Your task to perform on an android device: Do I have any events today? Image 0: 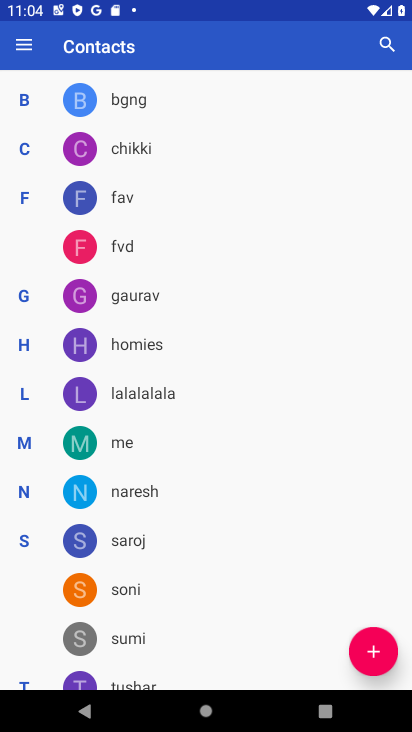
Step 0: press home button
Your task to perform on an android device: Do I have any events today? Image 1: 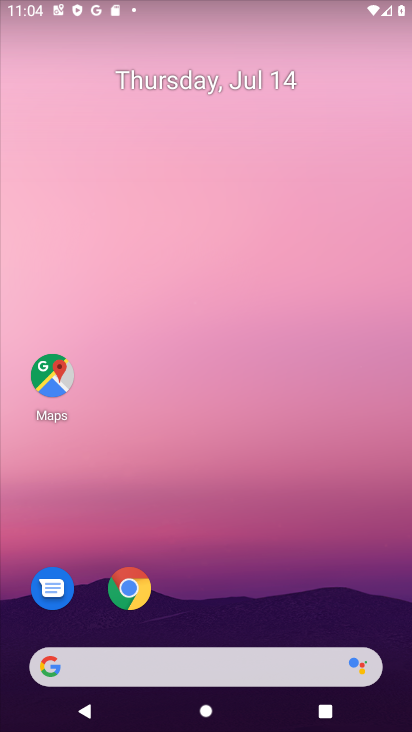
Step 1: drag from (309, 567) to (314, 1)
Your task to perform on an android device: Do I have any events today? Image 2: 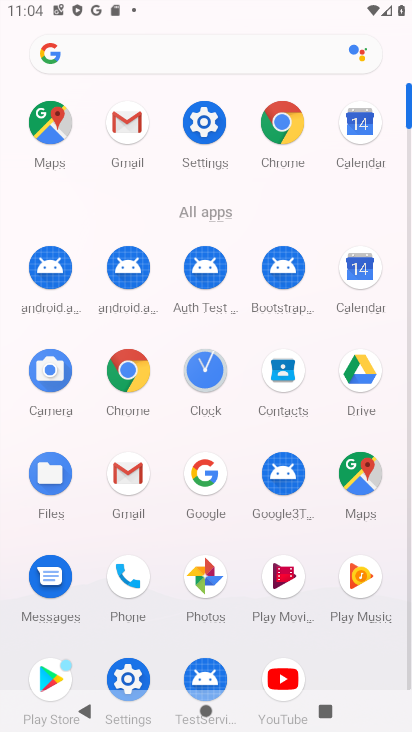
Step 2: click (346, 279)
Your task to perform on an android device: Do I have any events today? Image 3: 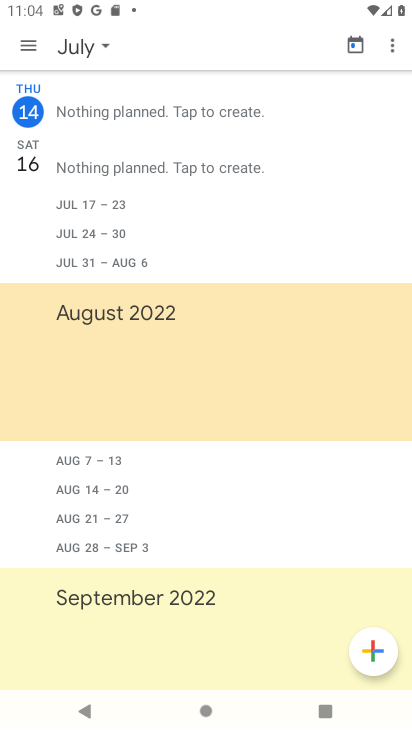
Step 3: click (99, 26)
Your task to perform on an android device: Do I have any events today? Image 4: 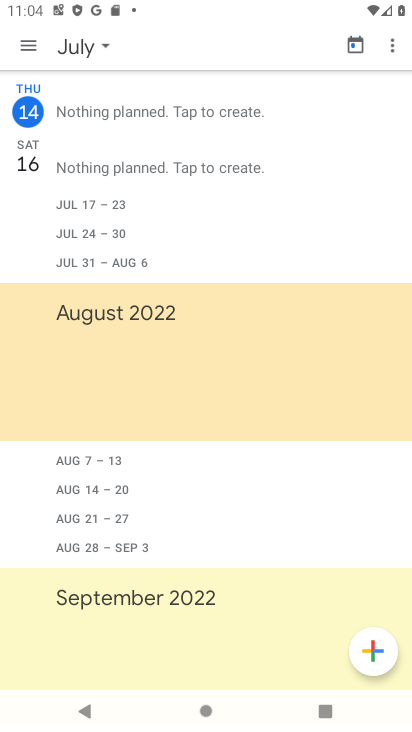
Step 4: click (99, 39)
Your task to perform on an android device: Do I have any events today? Image 5: 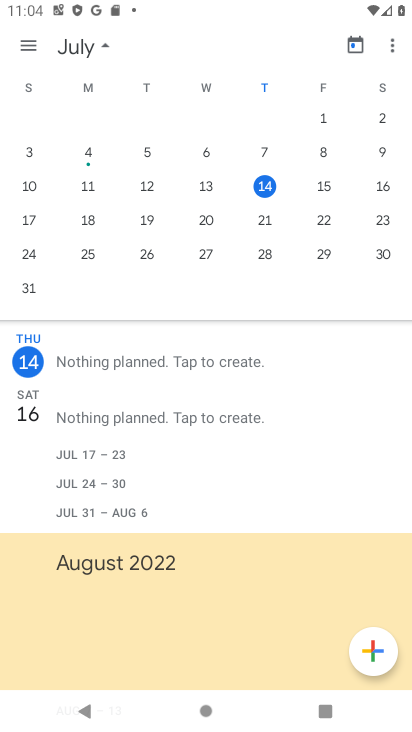
Step 5: click (321, 191)
Your task to perform on an android device: Do I have any events today? Image 6: 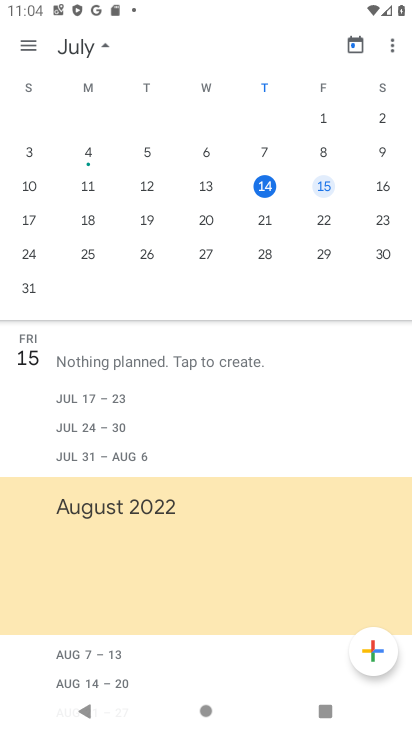
Step 6: task complete